Your task to perform on an android device: Turn on the flashlight Image 0: 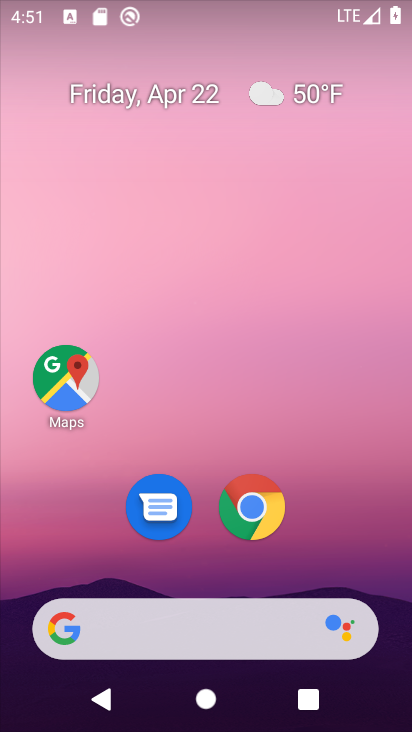
Step 0: drag from (373, 572) to (269, 132)
Your task to perform on an android device: Turn on the flashlight Image 1: 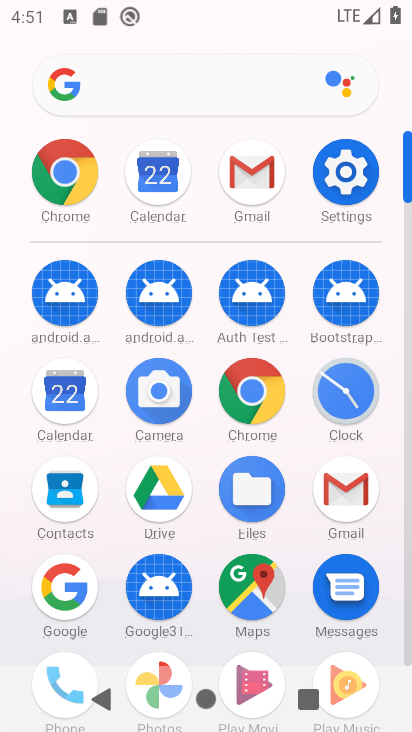
Step 1: click (404, 649)
Your task to perform on an android device: Turn on the flashlight Image 2: 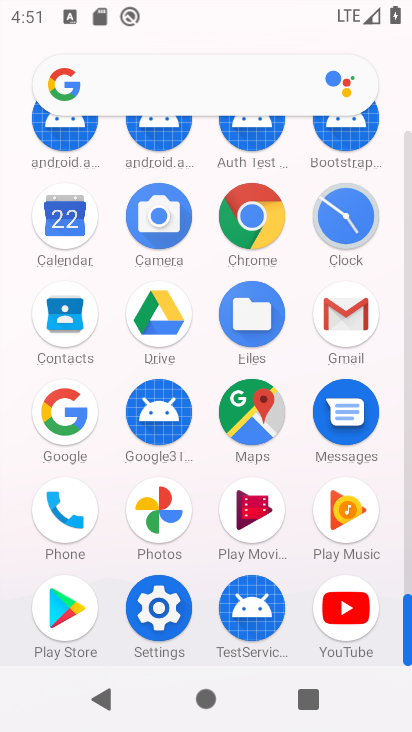
Step 2: drag from (209, 48) to (269, 567)
Your task to perform on an android device: Turn on the flashlight Image 3: 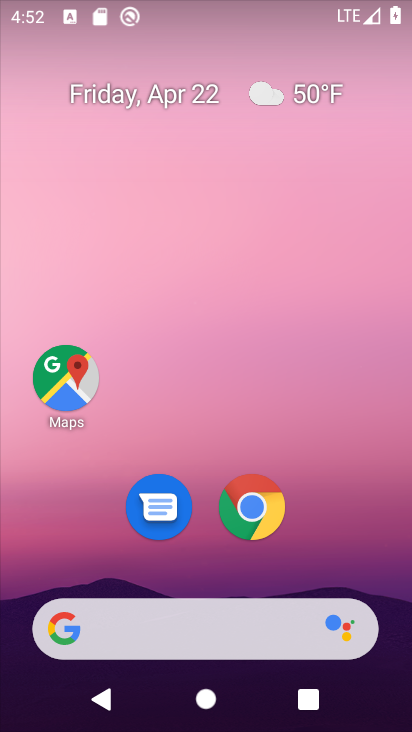
Step 3: drag from (219, 8) to (311, 496)
Your task to perform on an android device: Turn on the flashlight Image 4: 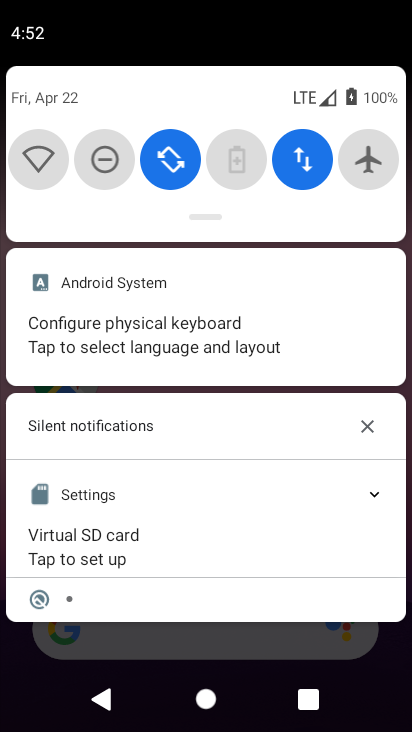
Step 4: drag from (204, 218) to (218, 550)
Your task to perform on an android device: Turn on the flashlight Image 5: 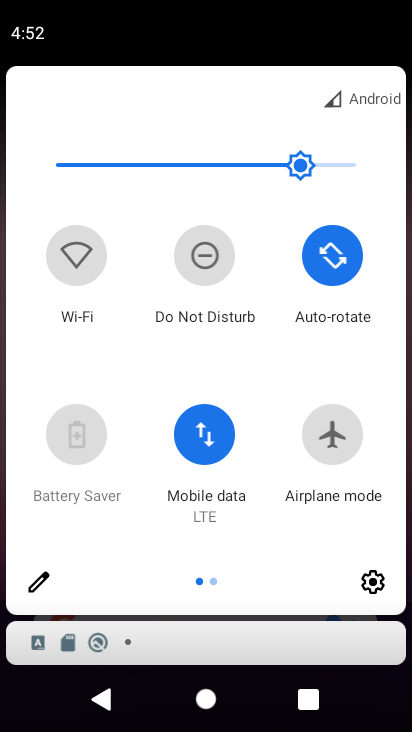
Step 5: click (34, 583)
Your task to perform on an android device: Turn on the flashlight Image 6: 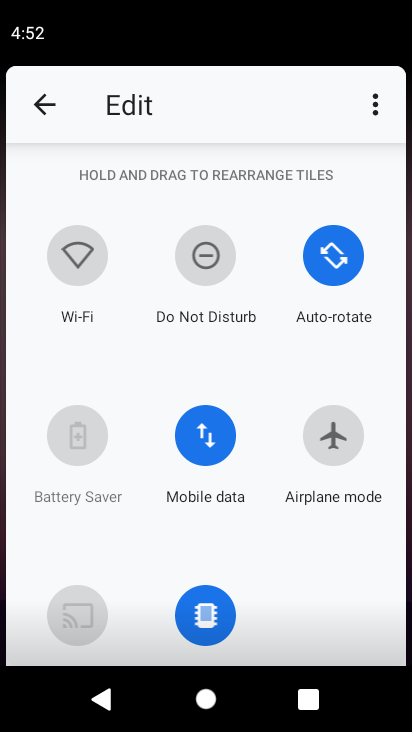
Step 6: task complete